Your task to perform on an android device: toggle notifications settings in the gmail app Image 0: 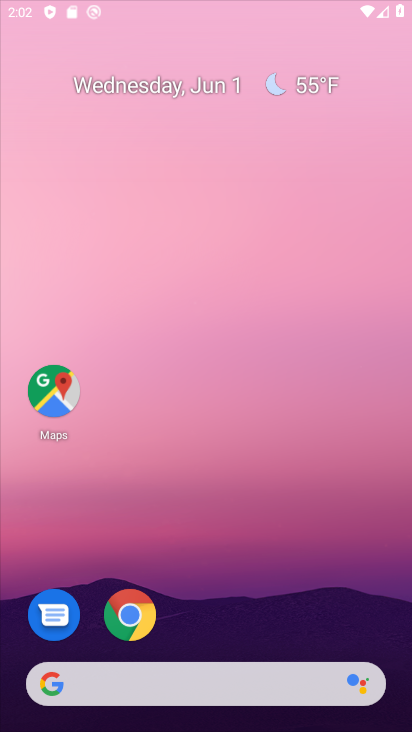
Step 0: click (126, 628)
Your task to perform on an android device: toggle notifications settings in the gmail app Image 1: 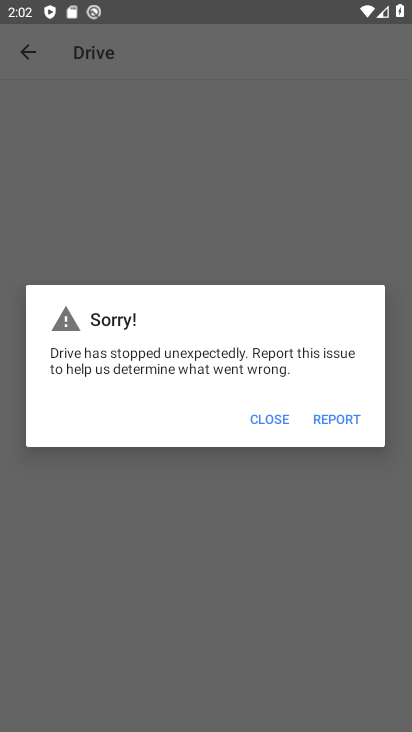
Step 1: press home button
Your task to perform on an android device: toggle notifications settings in the gmail app Image 2: 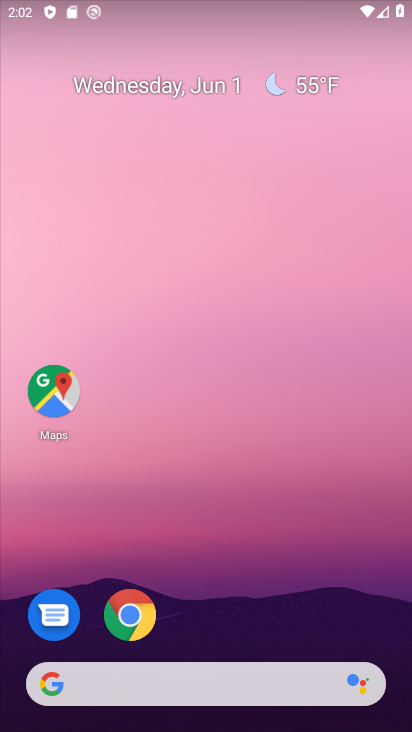
Step 2: drag from (214, 587) to (307, 81)
Your task to perform on an android device: toggle notifications settings in the gmail app Image 3: 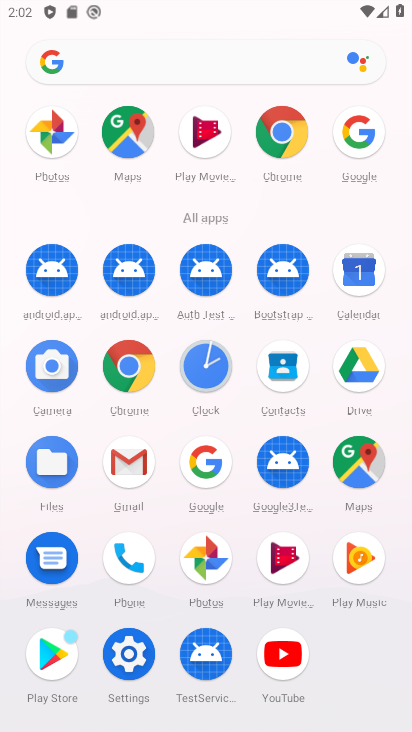
Step 3: click (133, 476)
Your task to perform on an android device: toggle notifications settings in the gmail app Image 4: 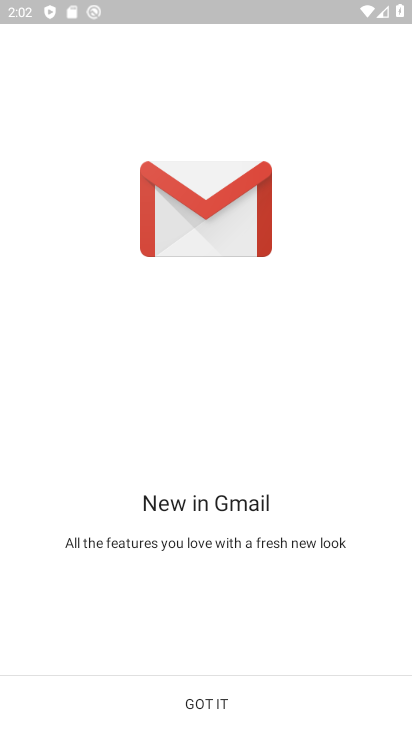
Step 4: click (208, 705)
Your task to perform on an android device: toggle notifications settings in the gmail app Image 5: 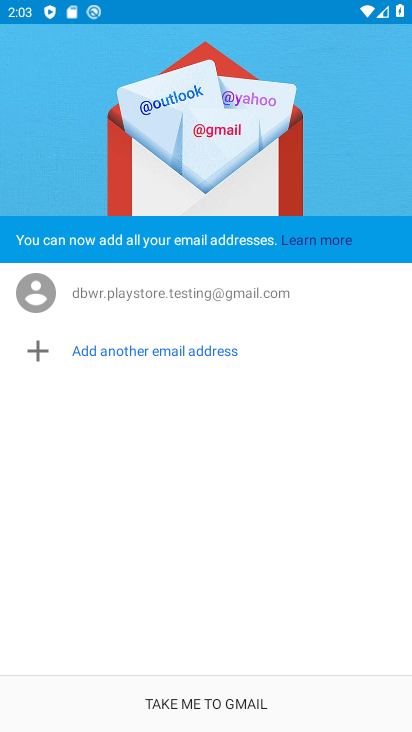
Step 5: click (261, 699)
Your task to perform on an android device: toggle notifications settings in the gmail app Image 6: 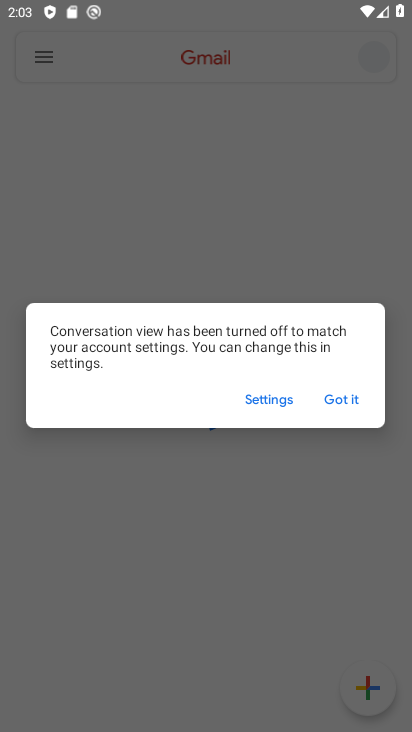
Step 6: click (348, 382)
Your task to perform on an android device: toggle notifications settings in the gmail app Image 7: 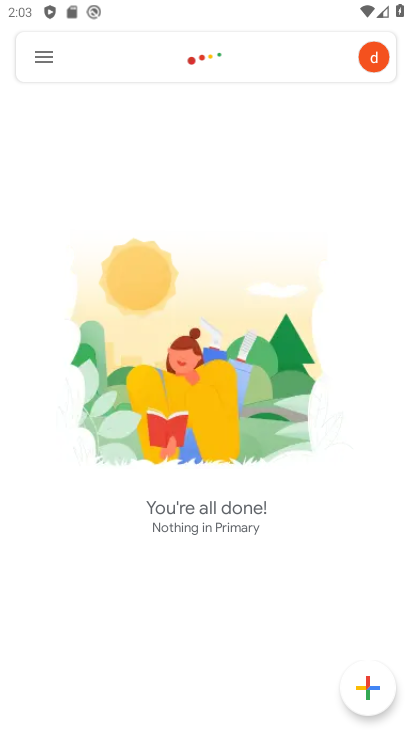
Step 7: click (44, 47)
Your task to perform on an android device: toggle notifications settings in the gmail app Image 8: 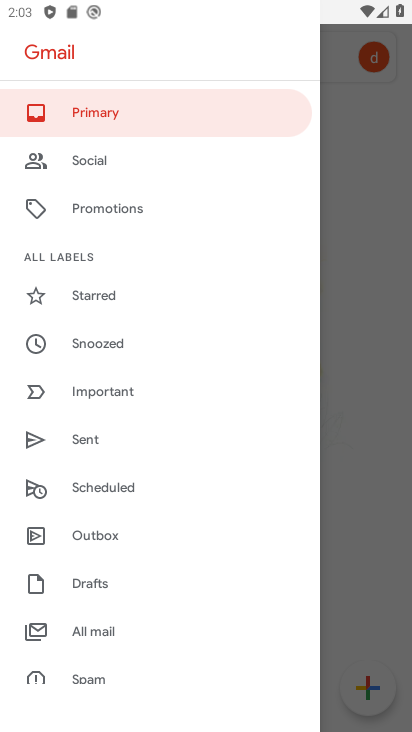
Step 8: drag from (105, 610) to (212, 204)
Your task to perform on an android device: toggle notifications settings in the gmail app Image 9: 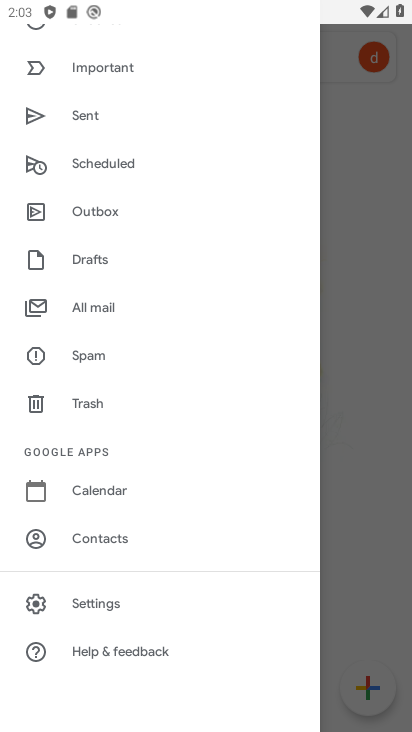
Step 9: click (138, 609)
Your task to perform on an android device: toggle notifications settings in the gmail app Image 10: 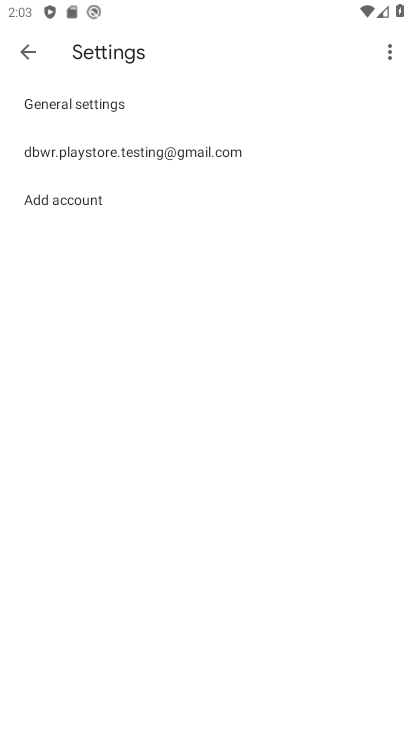
Step 10: click (254, 154)
Your task to perform on an android device: toggle notifications settings in the gmail app Image 11: 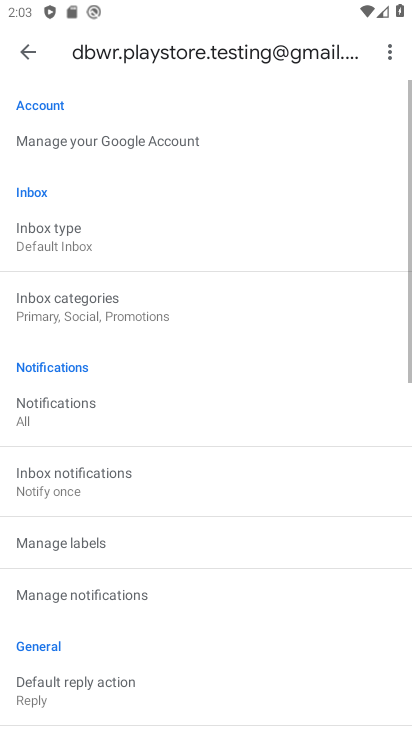
Step 11: drag from (161, 514) to (224, 340)
Your task to perform on an android device: toggle notifications settings in the gmail app Image 12: 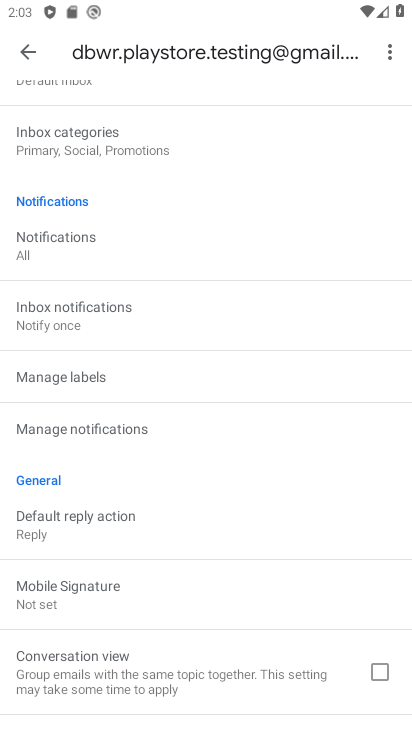
Step 12: click (171, 426)
Your task to perform on an android device: toggle notifications settings in the gmail app Image 13: 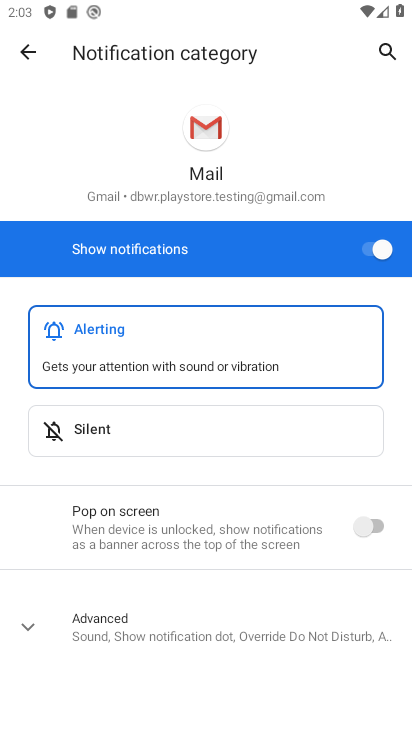
Step 13: click (365, 247)
Your task to perform on an android device: toggle notifications settings in the gmail app Image 14: 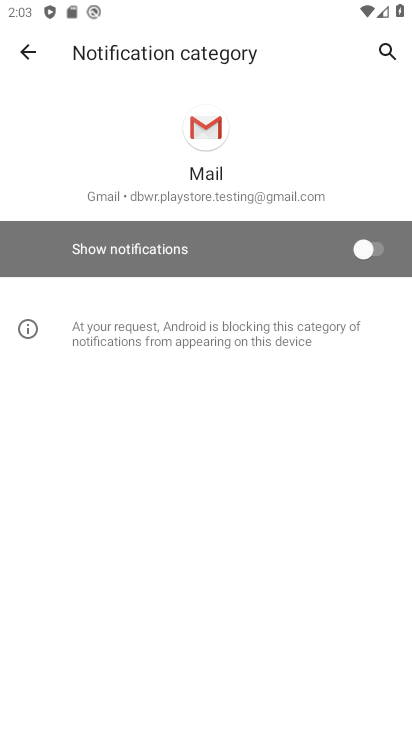
Step 14: task complete